Your task to perform on an android device: delete browsing data in the chrome app Image 0: 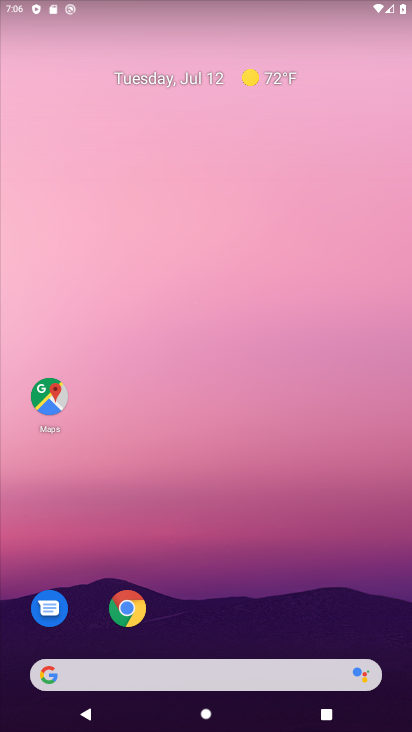
Step 0: click (136, 610)
Your task to perform on an android device: delete browsing data in the chrome app Image 1: 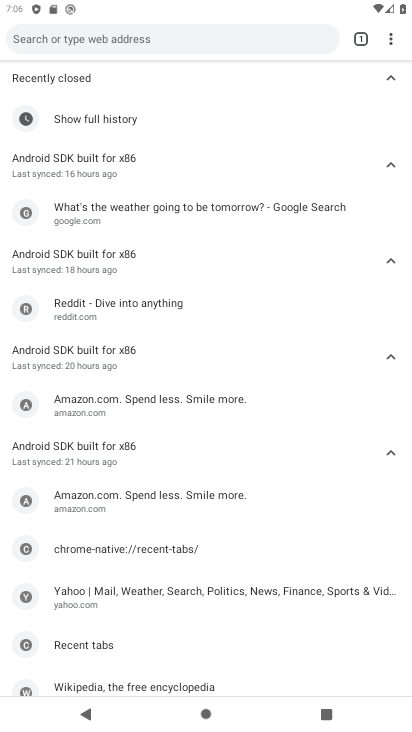
Step 1: click (392, 42)
Your task to perform on an android device: delete browsing data in the chrome app Image 2: 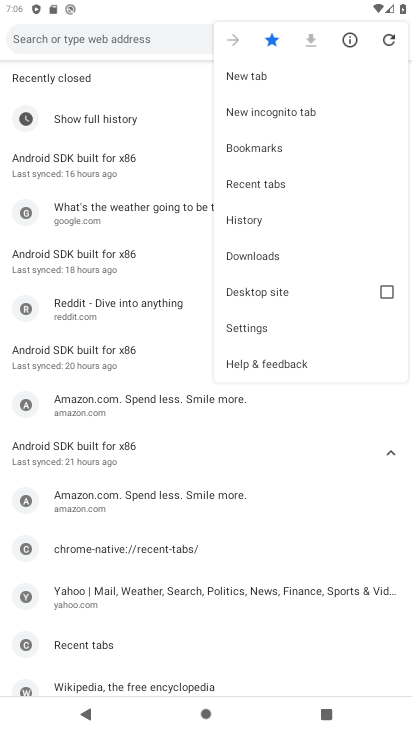
Step 2: click (242, 219)
Your task to perform on an android device: delete browsing data in the chrome app Image 3: 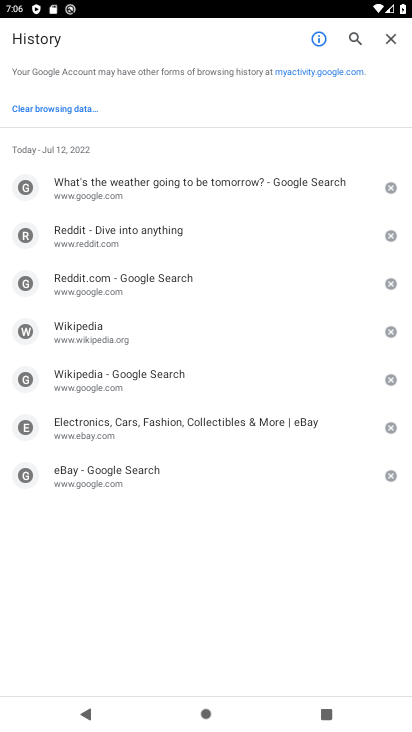
Step 3: click (52, 106)
Your task to perform on an android device: delete browsing data in the chrome app Image 4: 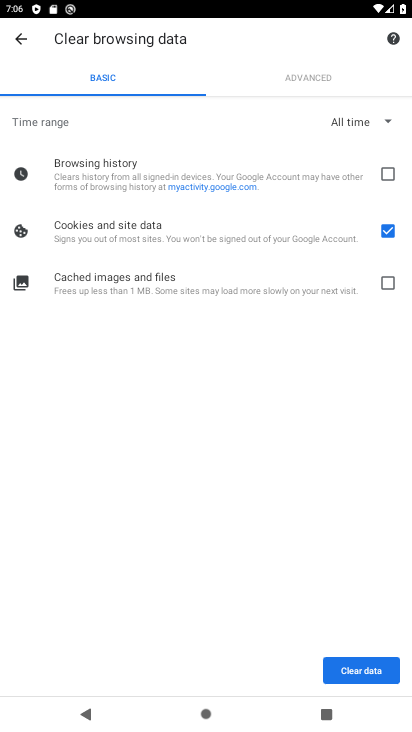
Step 4: click (387, 177)
Your task to perform on an android device: delete browsing data in the chrome app Image 5: 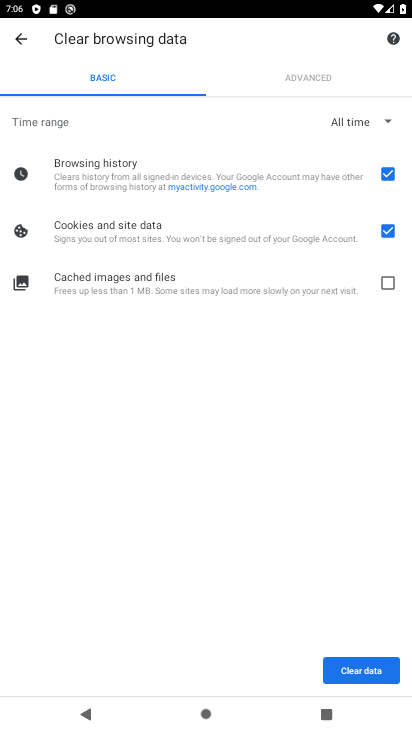
Step 5: click (389, 235)
Your task to perform on an android device: delete browsing data in the chrome app Image 6: 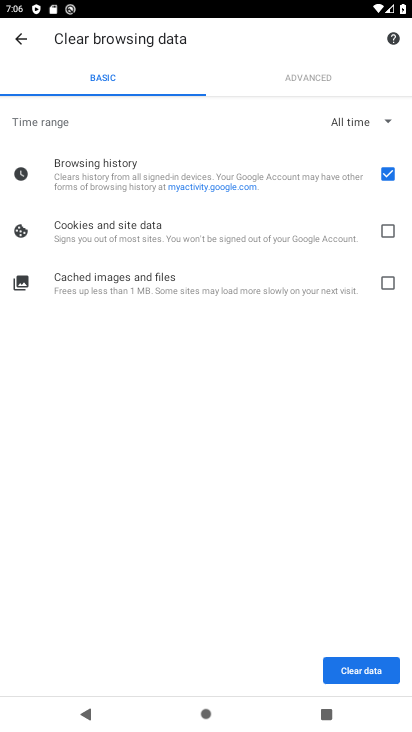
Step 6: click (357, 665)
Your task to perform on an android device: delete browsing data in the chrome app Image 7: 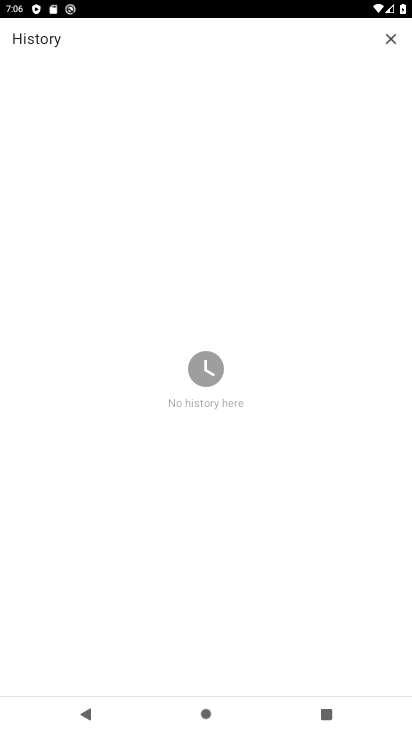
Step 7: task complete